Your task to perform on an android device: Go to wifi settings Image 0: 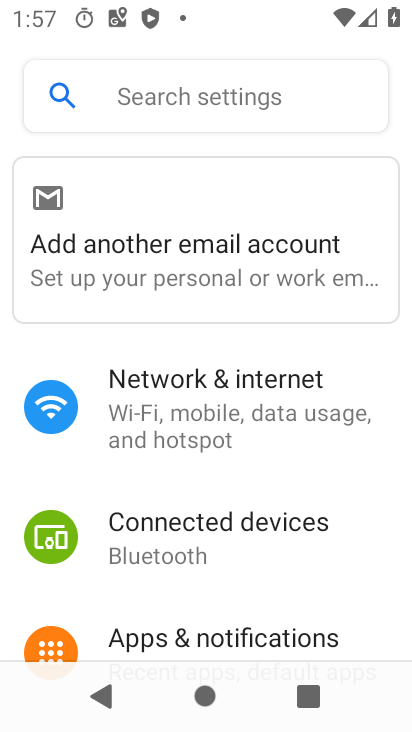
Step 0: press back button
Your task to perform on an android device: Go to wifi settings Image 1: 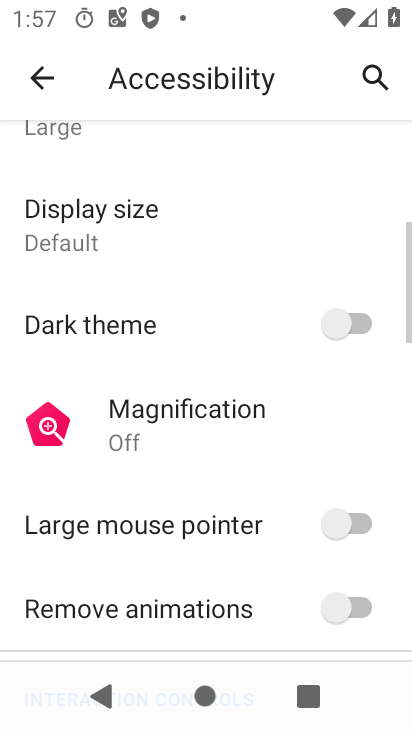
Step 1: press back button
Your task to perform on an android device: Go to wifi settings Image 2: 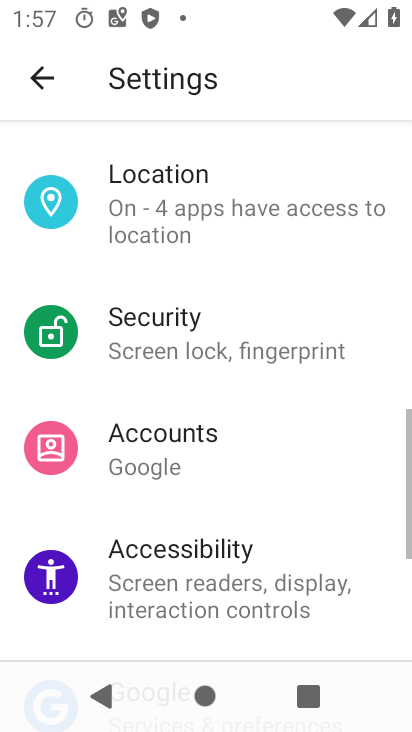
Step 2: drag from (217, 20) to (248, 621)
Your task to perform on an android device: Go to wifi settings Image 3: 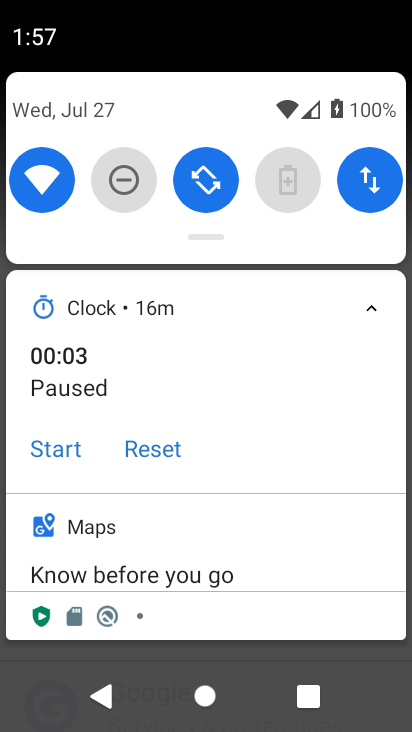
Step 3: click (27, 181)
Your task to perform on an android device: Go to wifi settings Image 4: 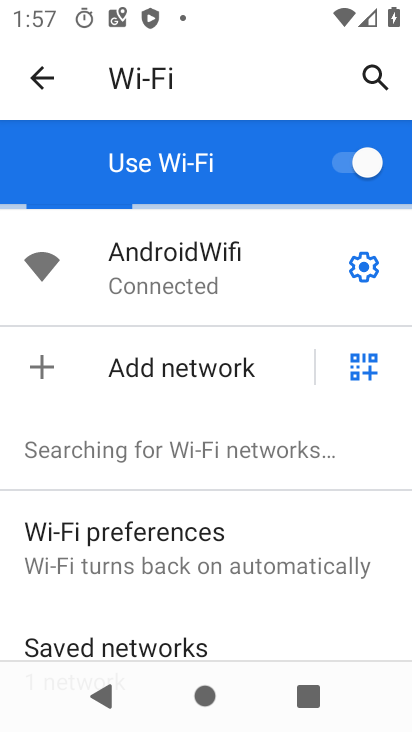
Step 4: drag from (200, 6) to (191, 560)
Your task to perform on an android device: Go to wifi settings Image 5: 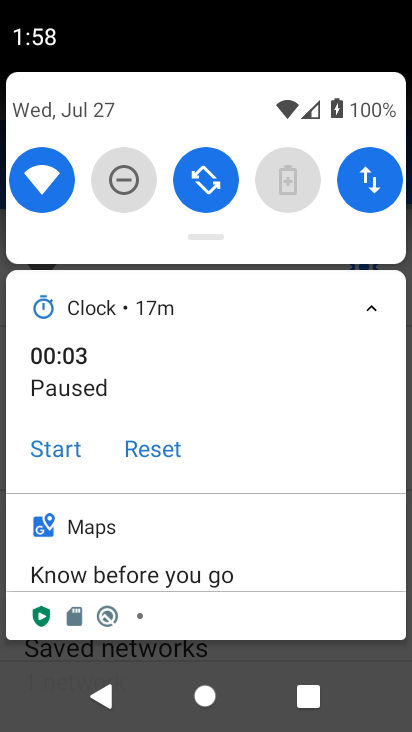
Step 5: click (47, 176)
Your task to perform on an android device: Go to wifi settings Image 6: 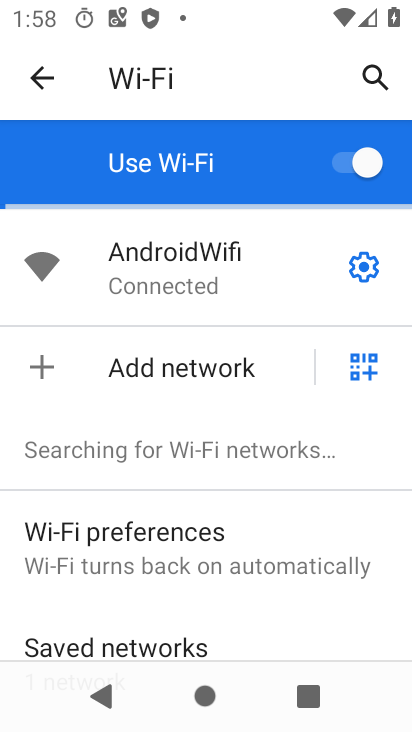
Step 6: task complete